Your task to perform on an android device: open sync settings in chrome Image 0: 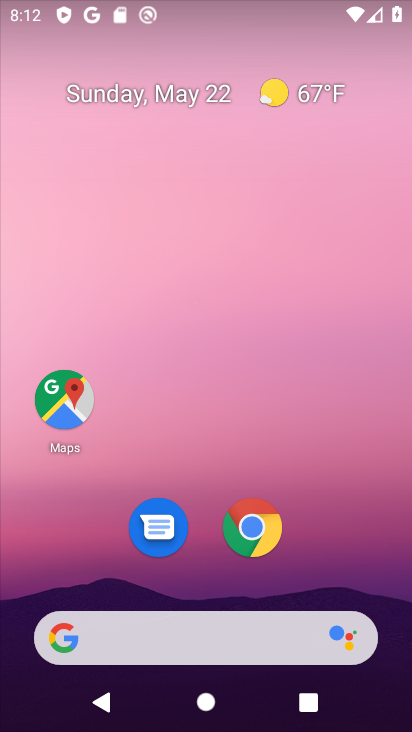
Step 0: press home button
Your task to perform on an android device: open sync settings in chrome Image 1: 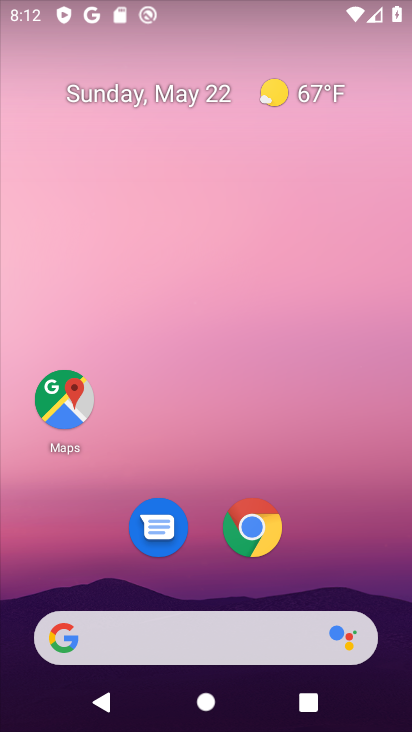
Step 1: click (250, 521)
Your task to perform on an android device: open sync settings in chrome Image 2: 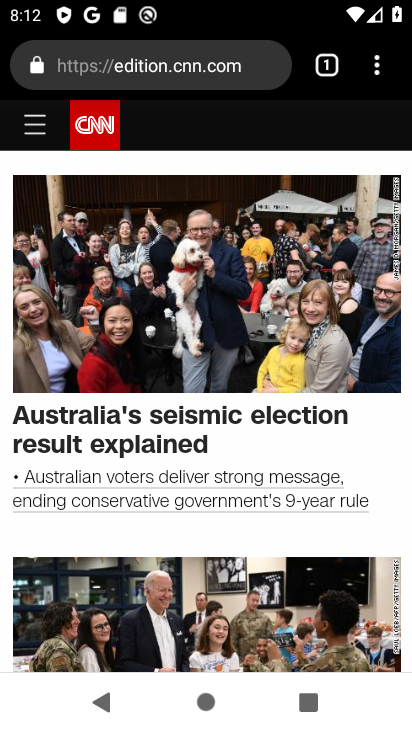
Step 2: click (374, 60)
Your task to perform on an android device: open sync settings in chrome Image 3: 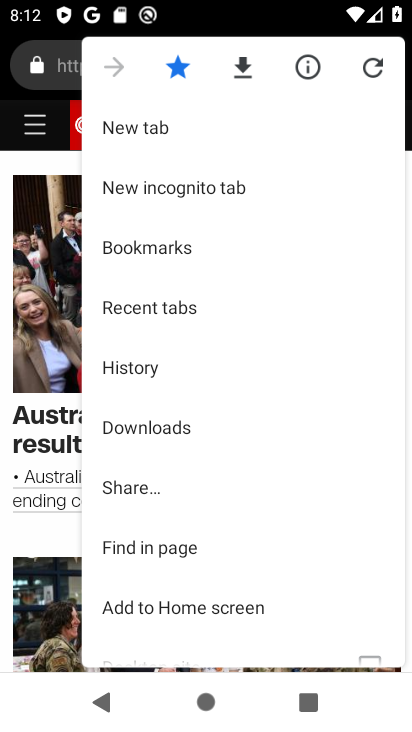
Step 3: drag from (256, 552) to (260, 131)
Your task to perform on an android device: open sync settings in chrome Image 4: 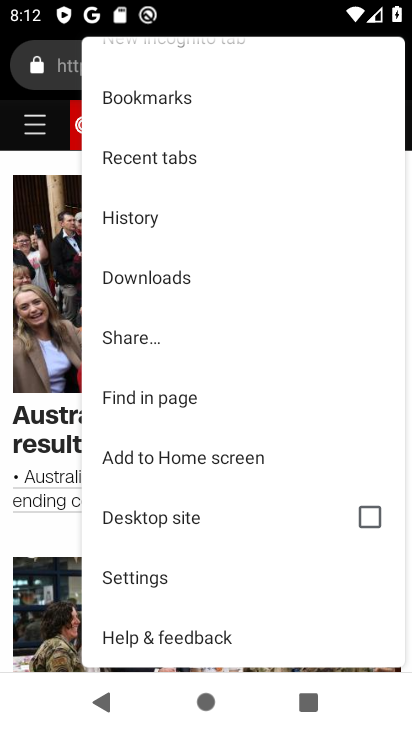
Step 4: click (179, 573)
Your task to perform on an android device: open sync settings in chrome Image 5: 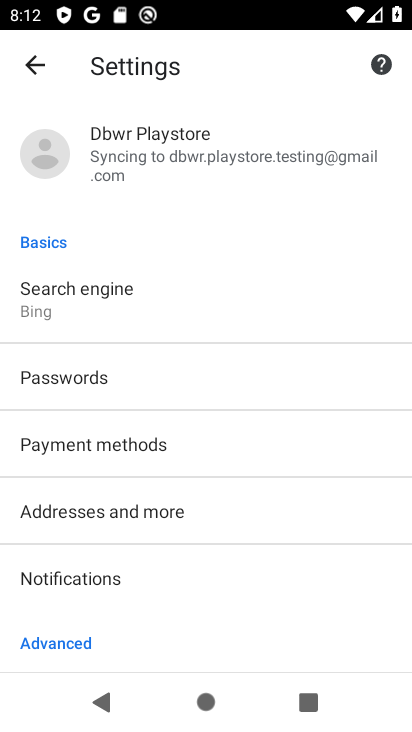
Step 5: drag from (220, 609) to (242, 207)
Your task to perform on an android device: open sync settings in chrome Image 6: 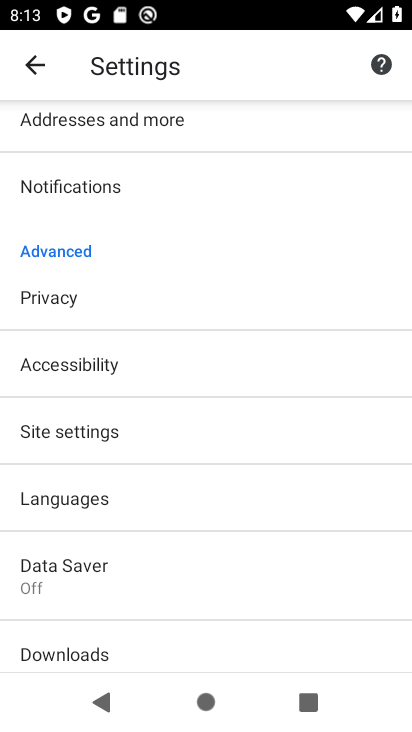
Step 6: drag from (216, 160) to (256, 727)
Your task to perform on an android device: open sync settings in chrome Image 7: 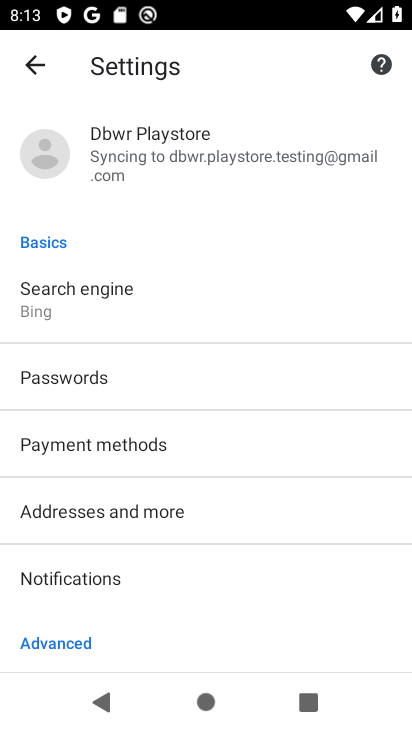
Step 7: click (158, 163)
Your task to perform on an android device: open sync settings in chrome Image 8: 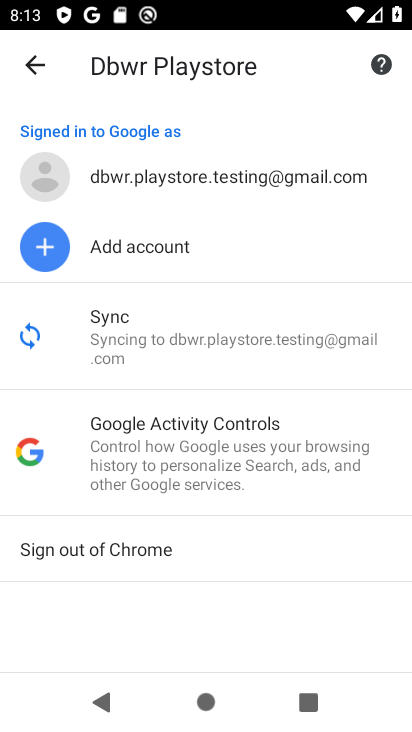
Step 8: click (154, 353)
Your task to perform on an android device: open sync settings in chrome Image 9: 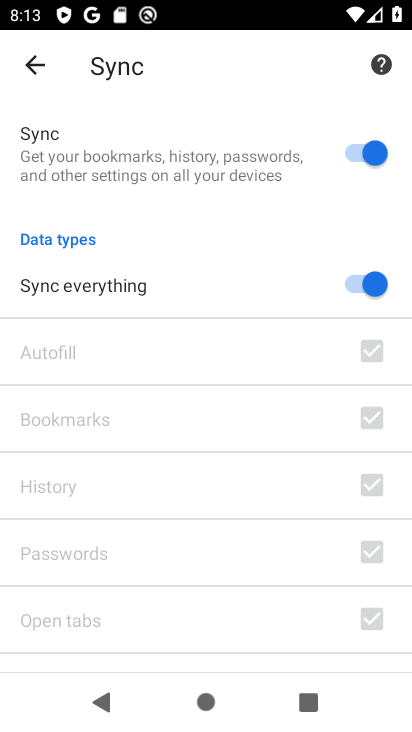
Step 9: task complete